Your task to perform on an android device: Open Google Image 0: 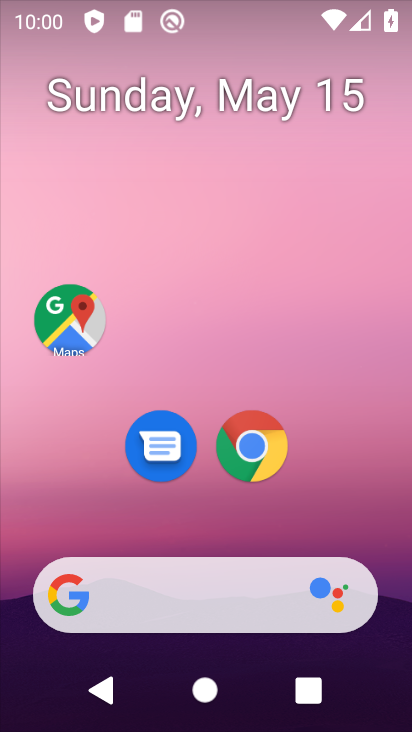
Step 0: drag from (305, 538) to (411, 140)
Your task to perform on an android device: Open Google Image 1: 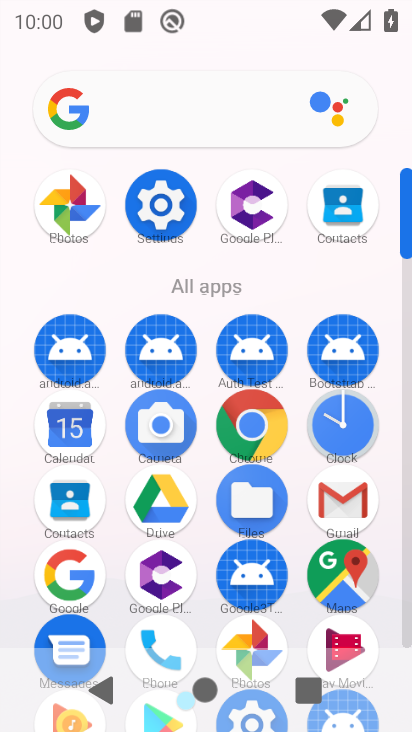
Step 1: drag from (250, 637) to (272, 351)
Your task to perform on an android device: Open Google Image 2: 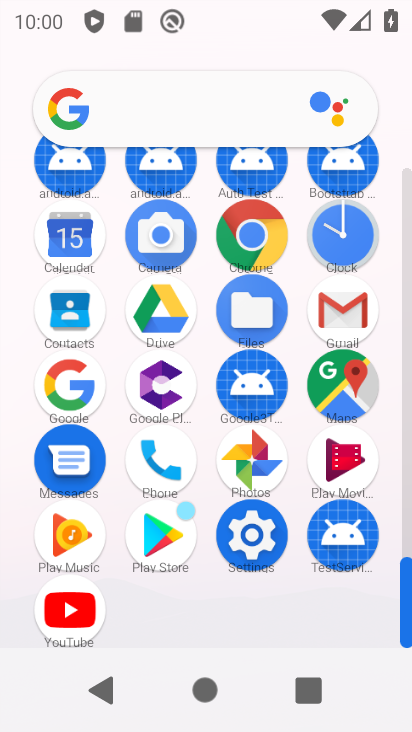
Step 2: click (82, 377)
Your task to perform on an android device: Open Google Image 3: 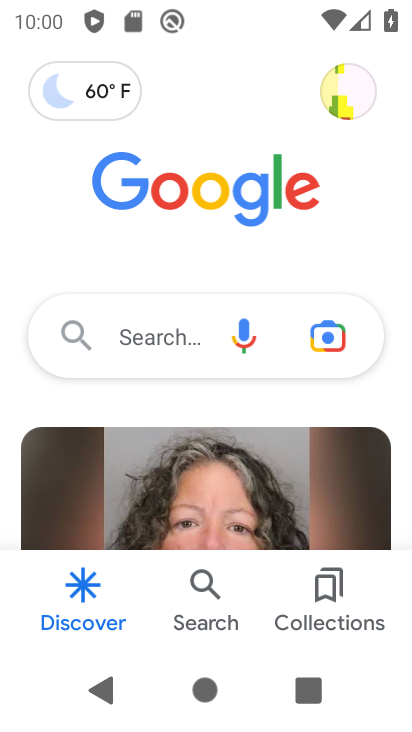
Step 3: task complete